Your task to perform on an android device: add a contact Image 0: 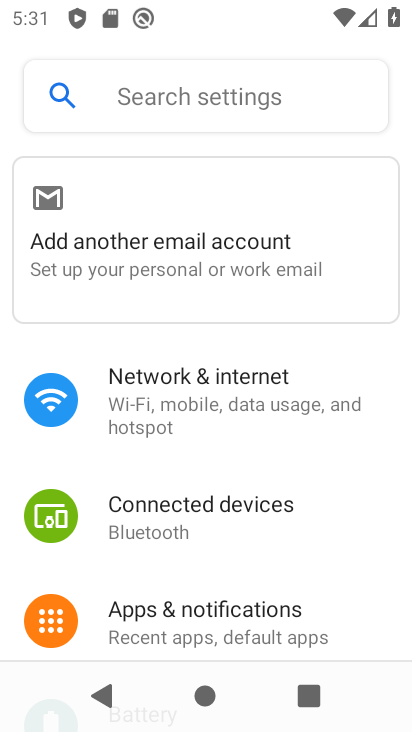
Step 0: drag from (259, 616) to (257, 220)
Your task to perform on an android device: add a contact Image 1: 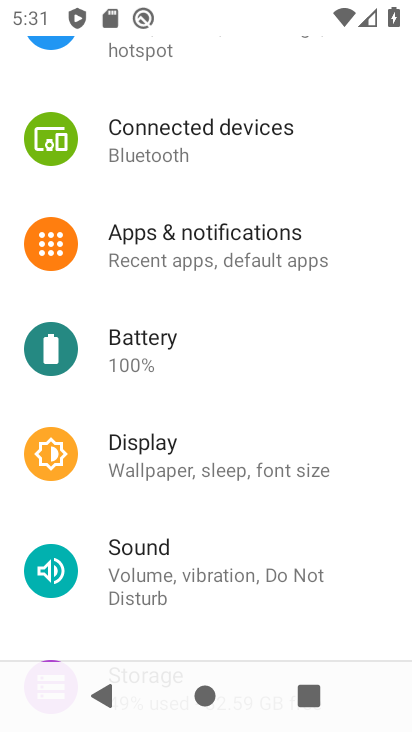
Step 1: drag from (176, 538) to (147, 149)
Your task to perform on an android device: add a contact Image 2: 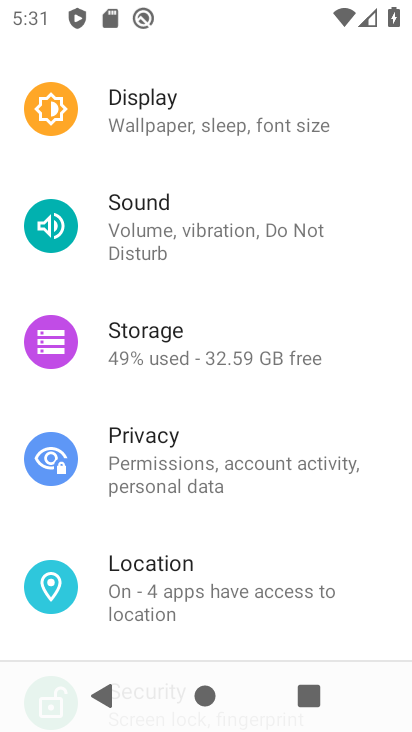
Step 2: drag from (173, 508) to (166, 146)
Your task to perform on an android device: add a contact Image 3: 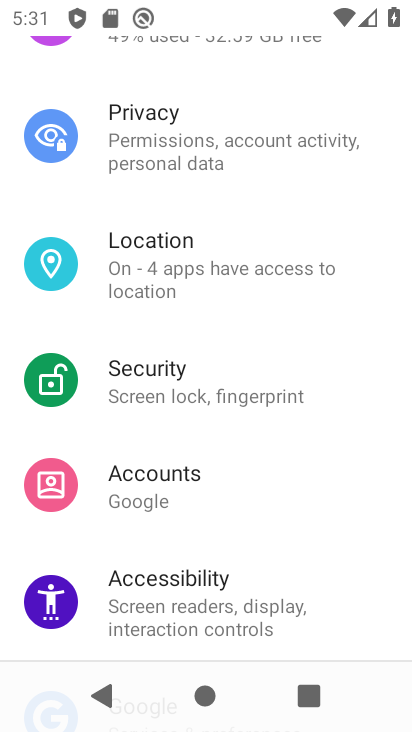
Step 3: press back button
Your task to perform on an android device: add a contact Image 4: 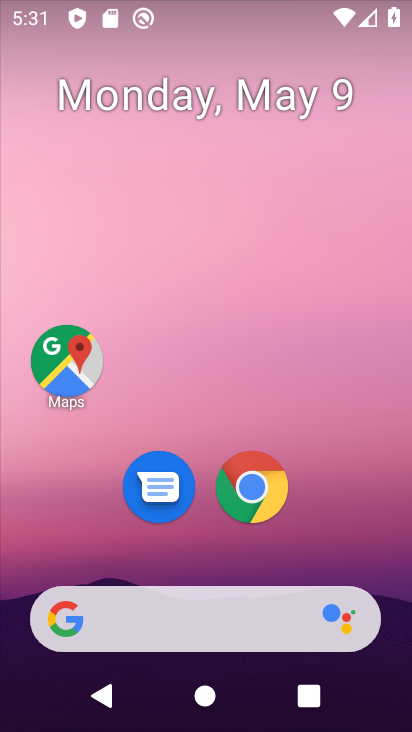
Step 4: drag from (236, 532) to (230, 23)
Your task to perform on an android device: add a contact Image 5: 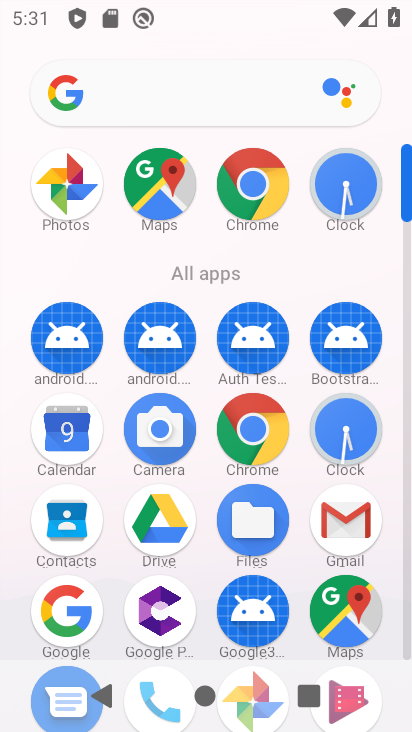
Step 5: click (79, 546)
Your task to perform on an android device: add a contact Image 6: 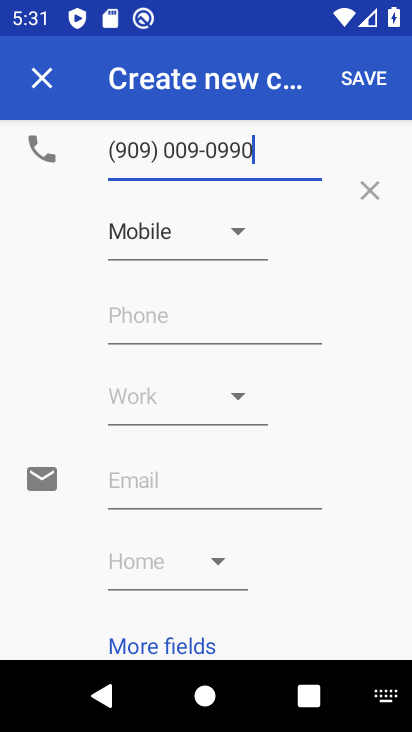
Step 6: drag from (217, 202) to (177, 669)
Your task to perform on an android device: add a contact Image 7: 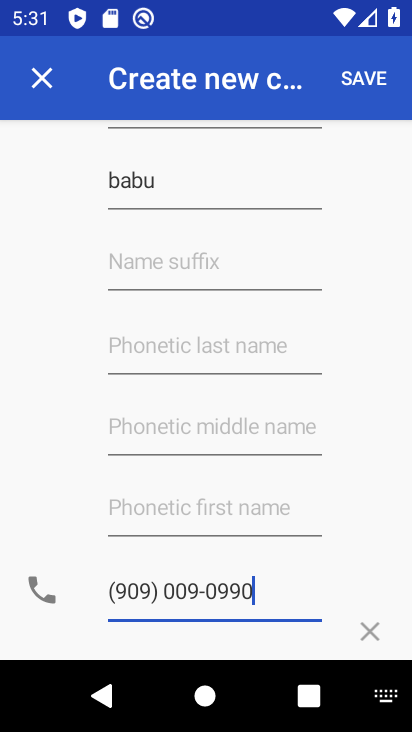
Step 7: drag from (208, 283) to (182, 674)
Your task to perform on an android device: add a contact Image 8: 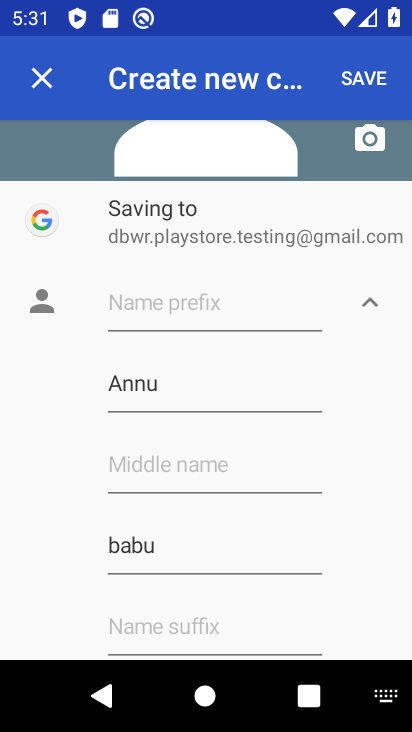
Step 8: click (361, 77)
Your task to perform on an android device: add a contact Image 9: 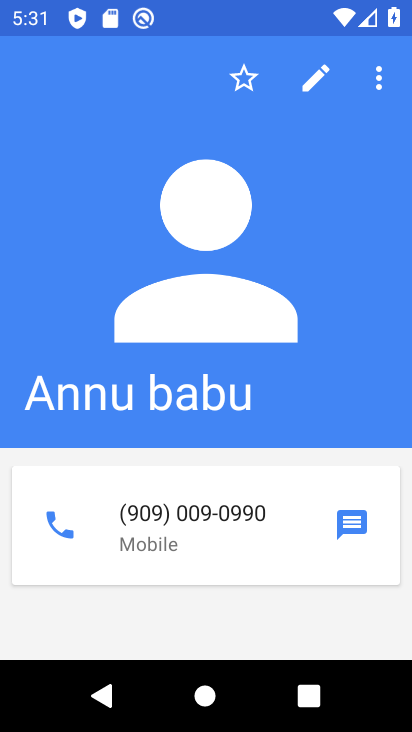
Step 9: task complete